Your task to perform on an android device: Go to Google Image 0: 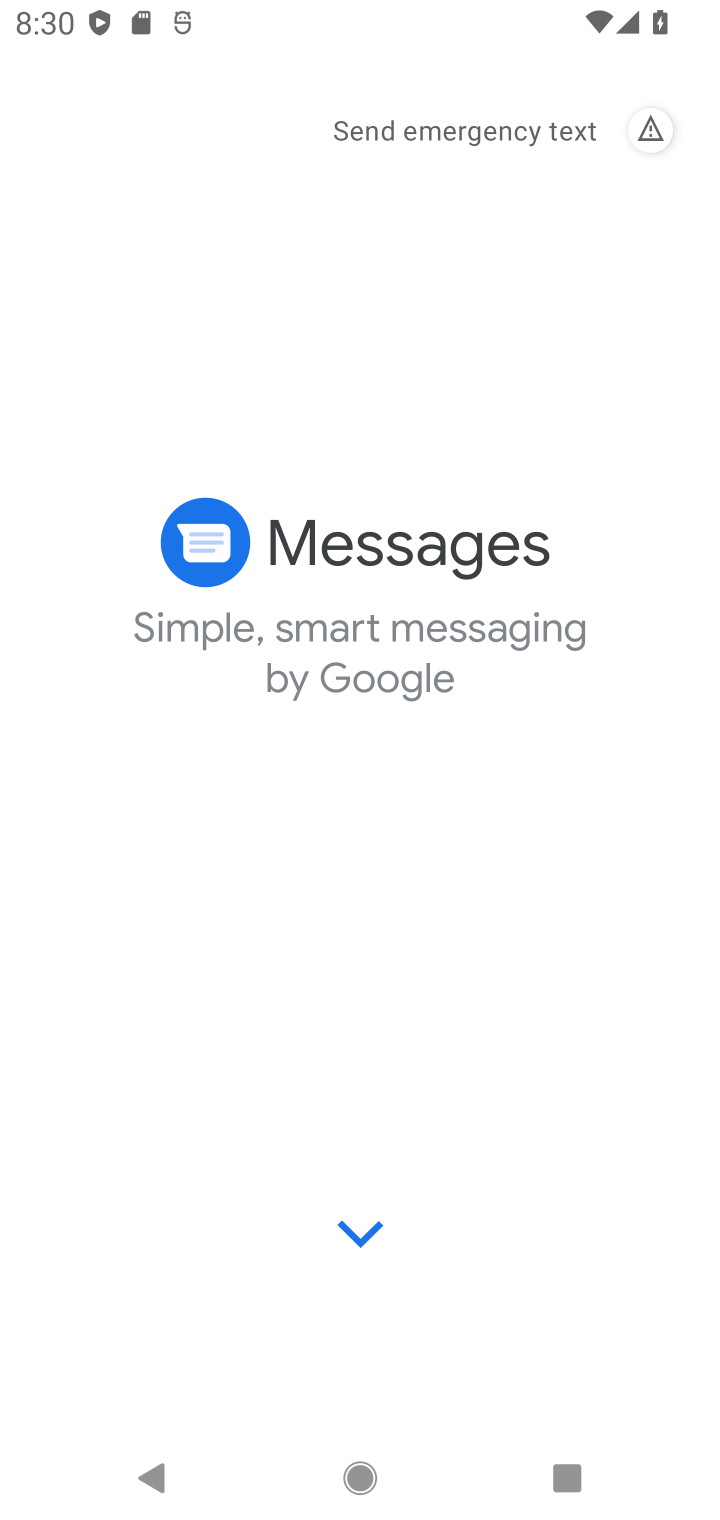
Step 0: press home button
Your task to perform on an android device: Go to Google Image 1: 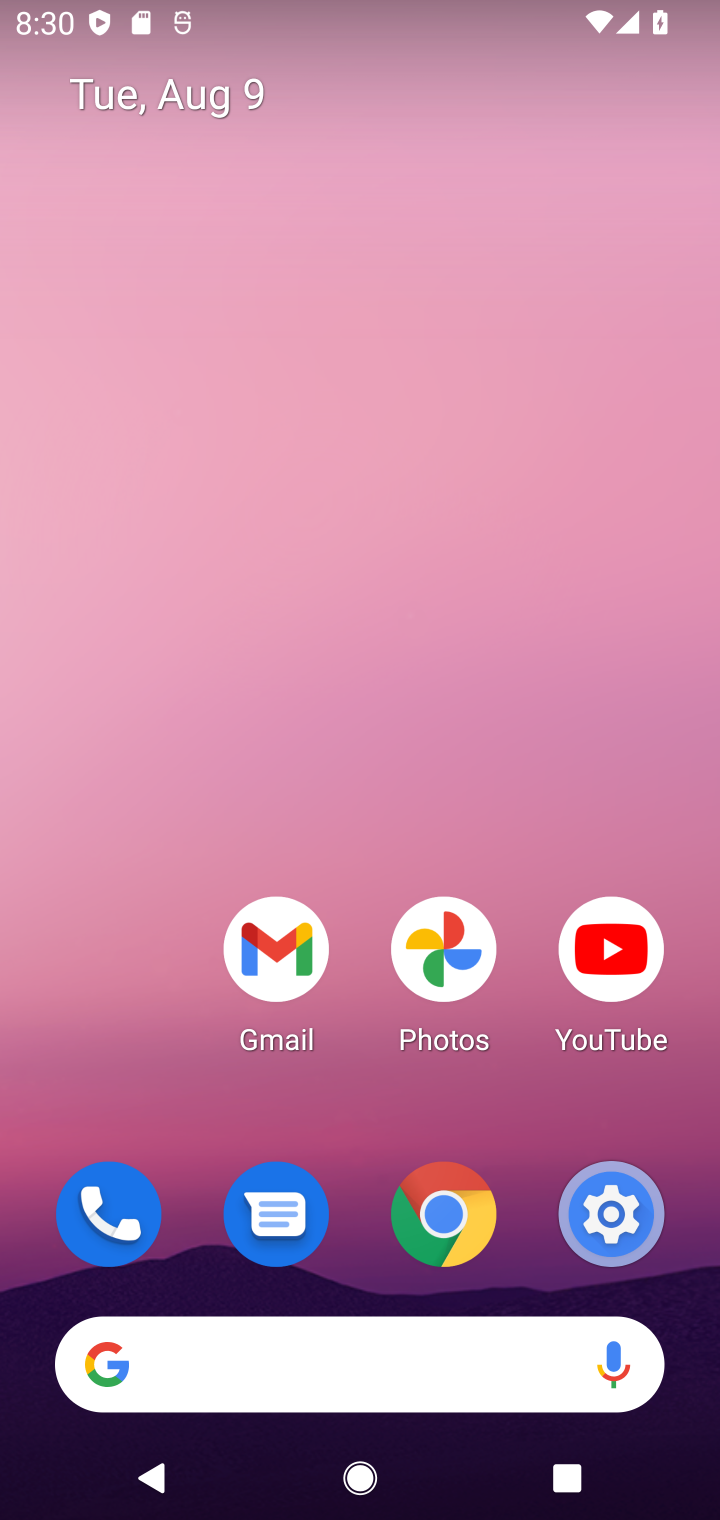
Step 1: click (244, 1356)
Your task to perform on an android device: Go to Google Image 2: 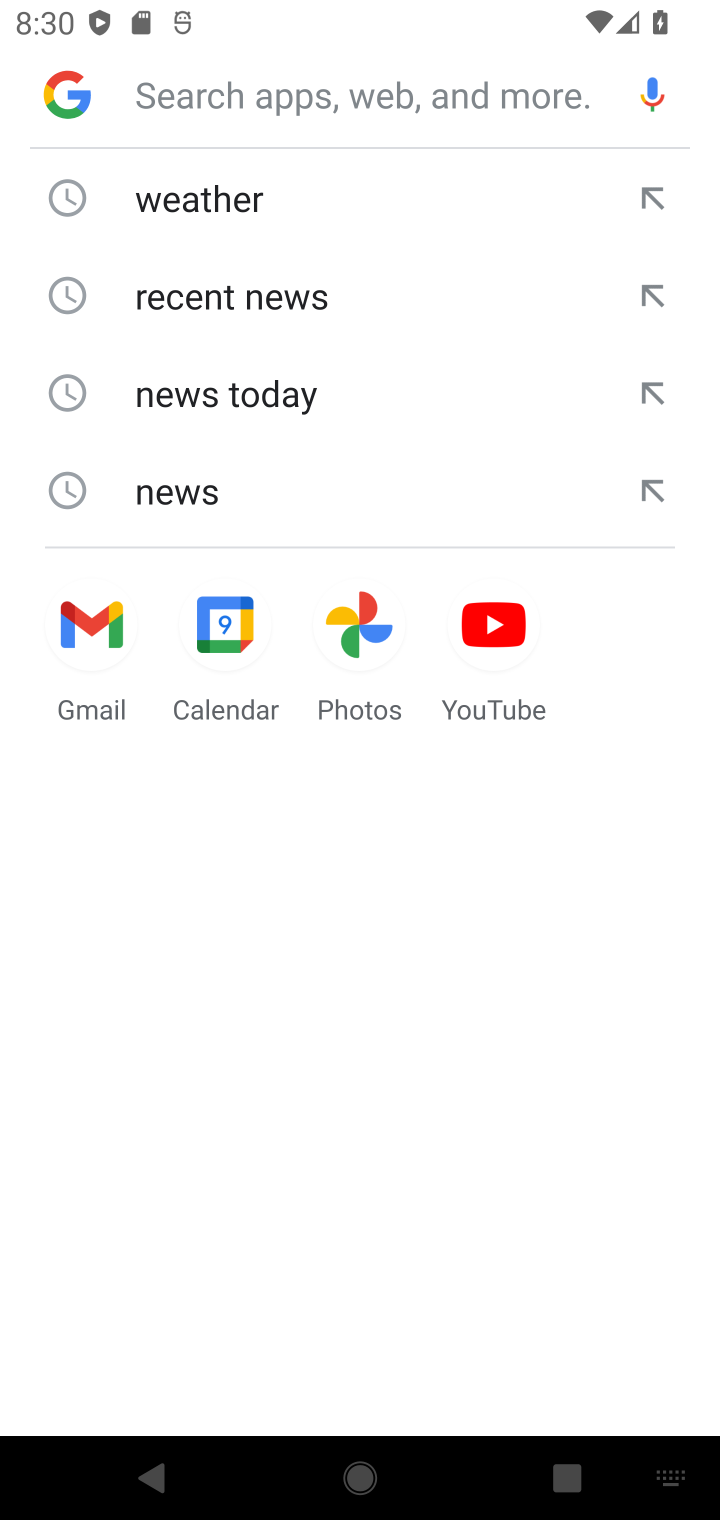
Step 2: task complete